Your task to perform on an android device: check android version Image 0: 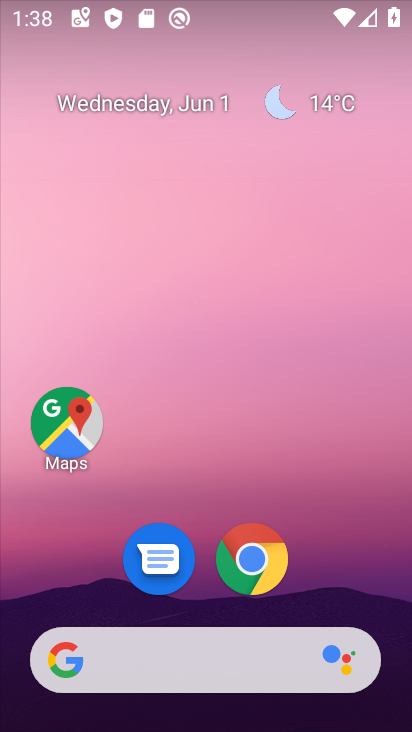
Step 0: drag from (393, 629) to (285, 100)
Your task to perform on an android device: check android version Image 1: 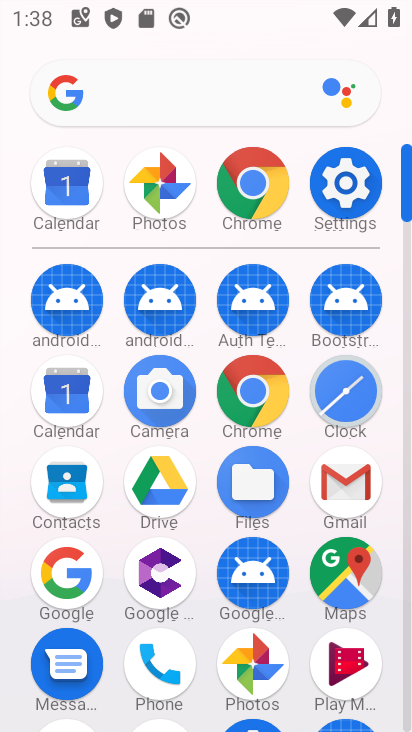
Step 1: click (321, 187)
Your task to perform on an android device: check android version Image 2: 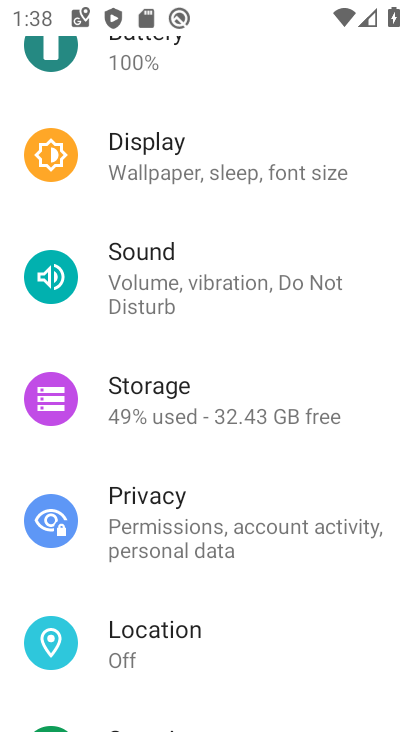
Step 2: drag from (368, 678) to (274, 115)
Your task to perform on an android device: check android version Image 3: 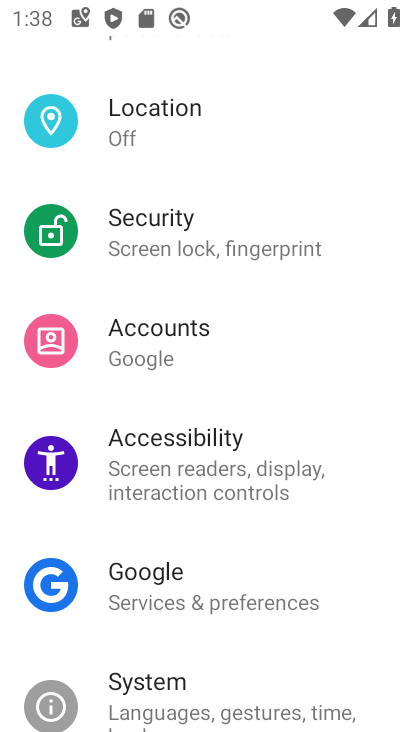
Step 3: drag from (266, 673) to (288, 261)
Your task to perform on an android device: check android version Image 4: 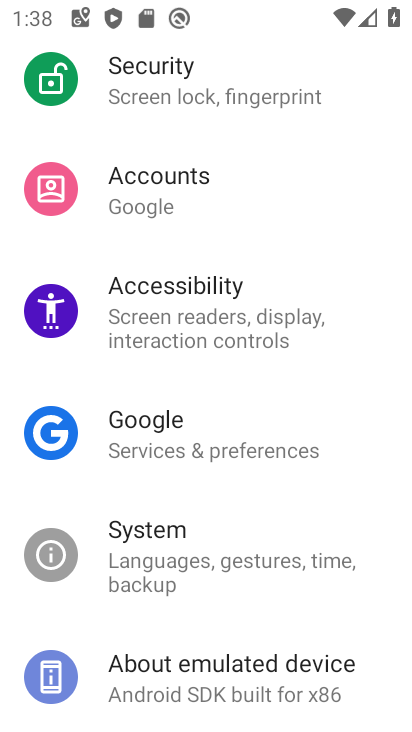
Step 4: click (122, 700)
Your task to perform on an android device: check android version Image 5: 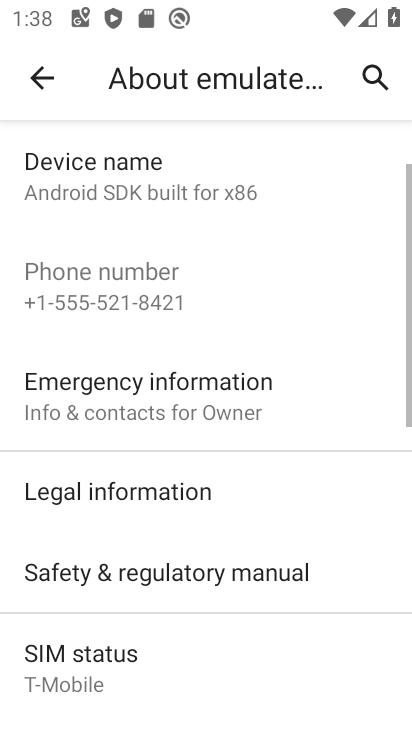
Step 5: drag from (214, 636) to (206, 130)
Your task to perform on an android device: check android version Image 6: 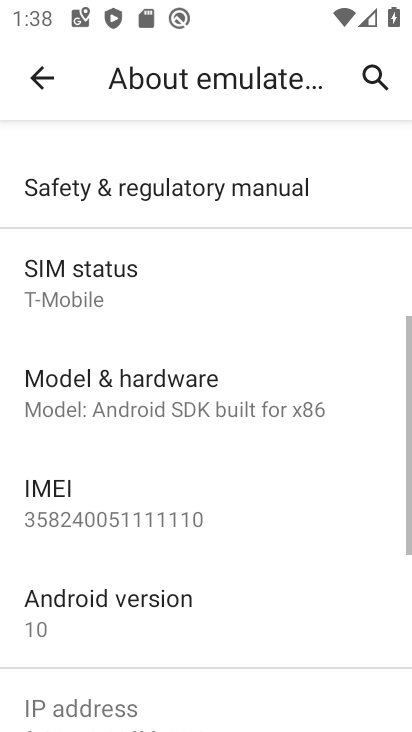
Step 6: click (87, 613)
Your task to perform on an android device: check android version Image 7: 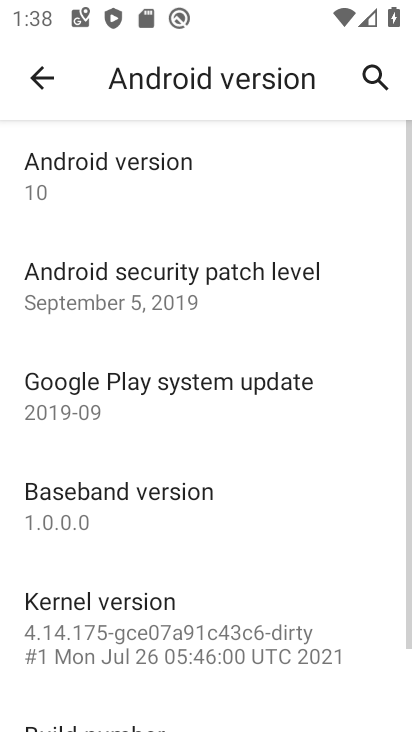
Step 7: click (132, 163)
Your task to perform on an android device: check android version Image 8: 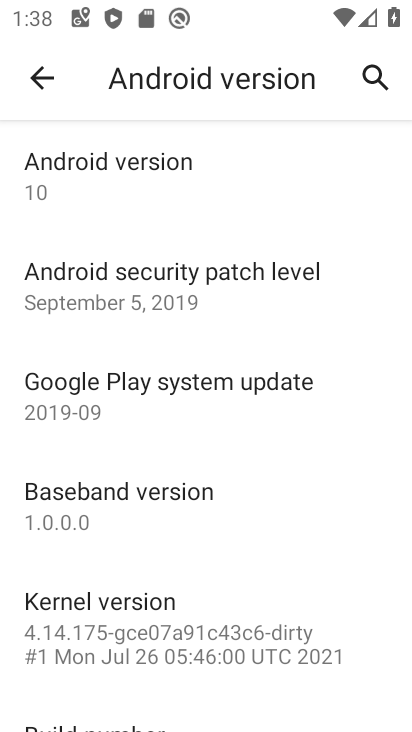
Step 8: task complete